Your task to perform on an android device: Turn off the flashlight Image 0: 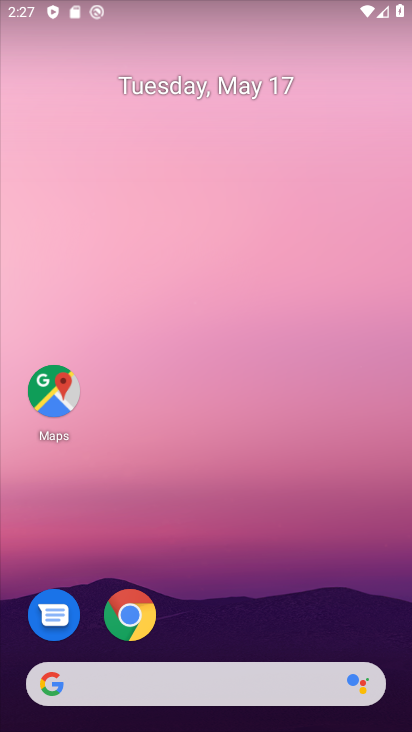
Step 0: drag from (214, 725) to (227, 163)
Your task to perform on an android device: Turn off the flashlight Image 1: 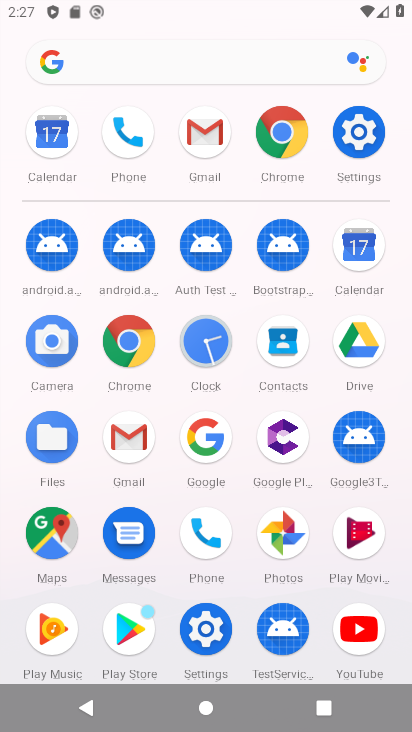
Step 1: click (358, 128)
Your task to perform on an android device: Turn off the flashlight Image 2: 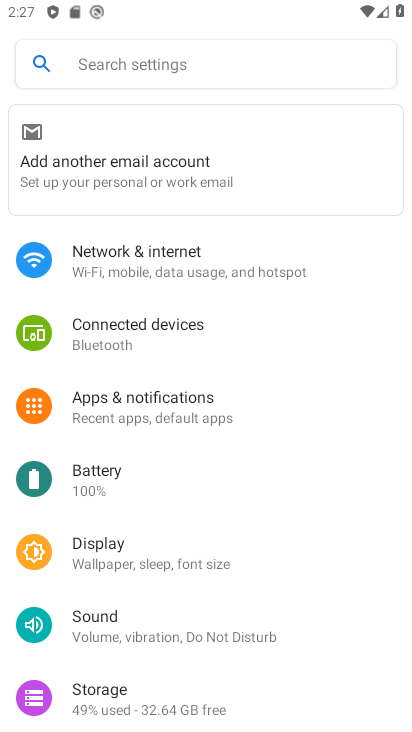
Step 2: task complete